Your task to perform on an android device: Go to Google maps Image 0: 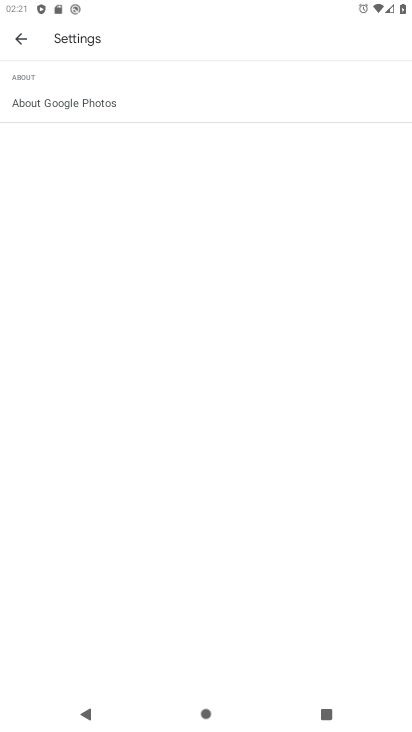
Step 0: press home button
Your task to perform on an android device: Go to Google maps Image 1: 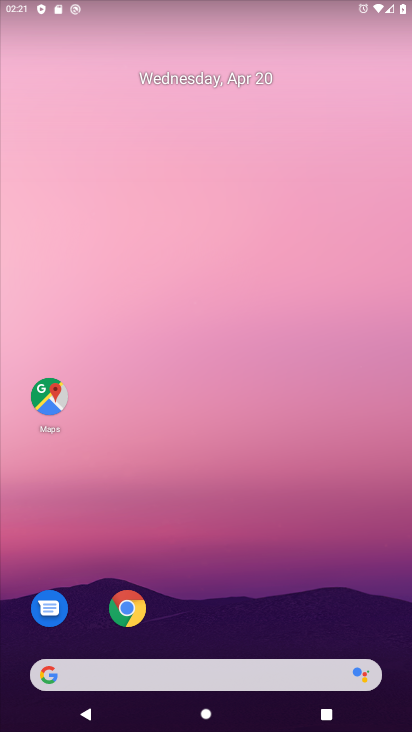
Step 1: drag from (235, 590) to (261, 120)
Your task to perform on an android device: Go to Google maps Image 2: 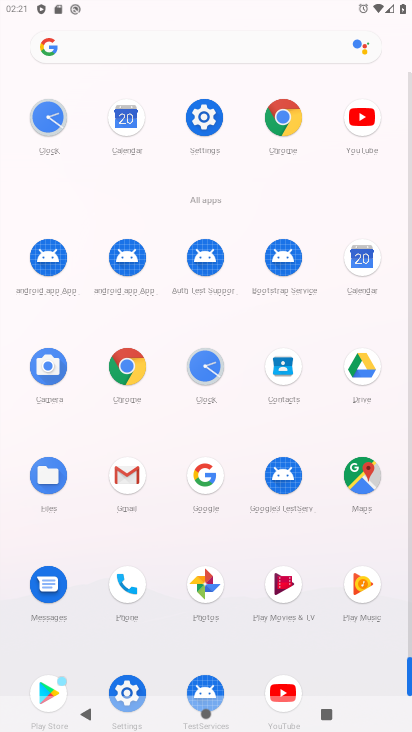
Step 2: click (365, 471)
Your task to perform on an android device: Go to Google maps Image 3: 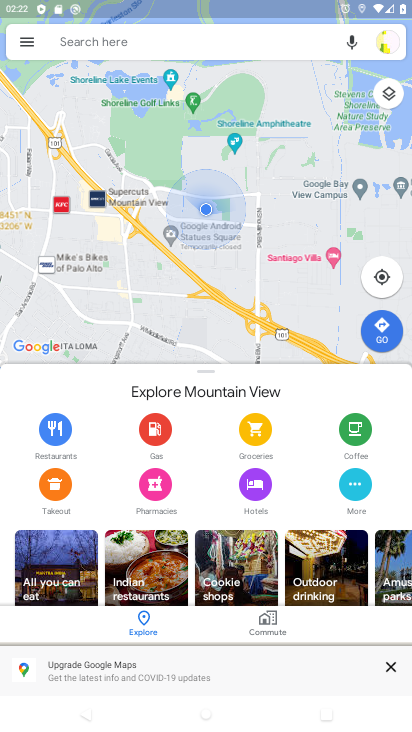
Step 3: task complete